Your task to perform on an android device: Open Google Chrome and click the shortcut for Amazon.com Image 0: 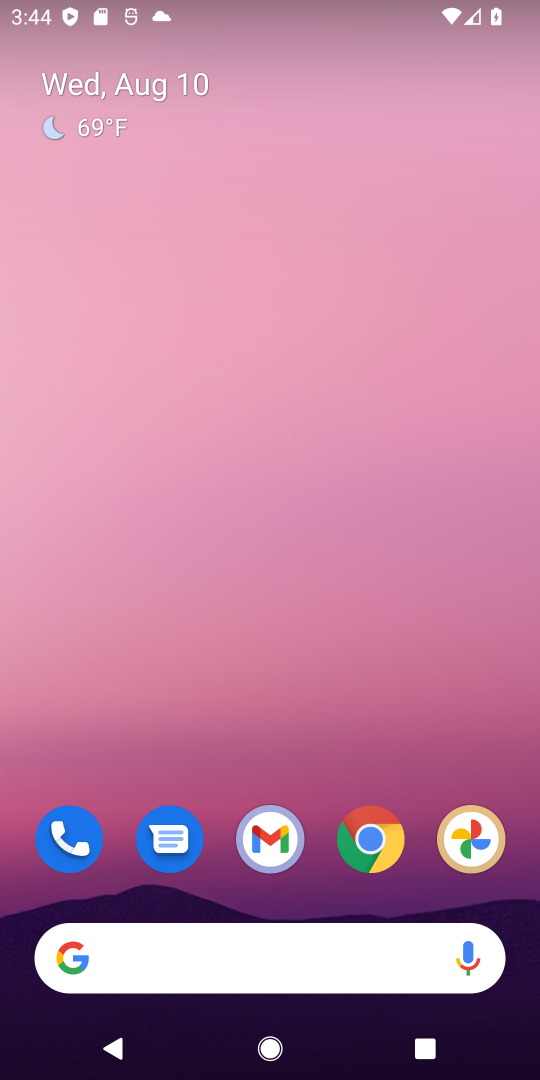
Step 0: click (375, 835)
Your task to perform on an android device: Open Google Chrome and click the shortcut for Amazon.com Image 1: 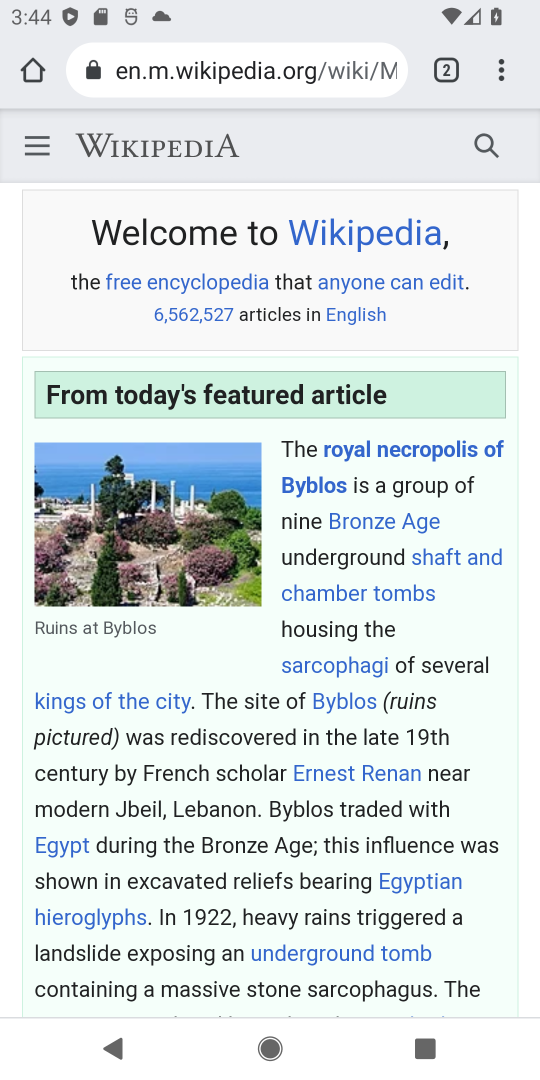
Step 1: press back button
Your task to perform on an android device: Open Google Chrome and click the shortcut for Amazon.com Image 2: 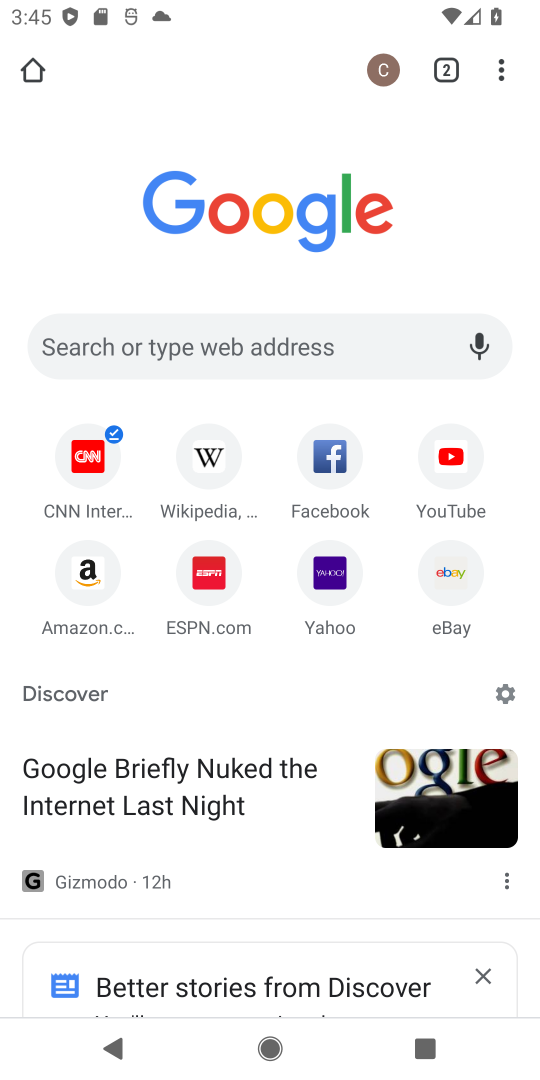
Step 2: click (94, 571)
Your task to perform on an android device: Open Google Chrome and click the shortcut for Amazon.com Image 3: 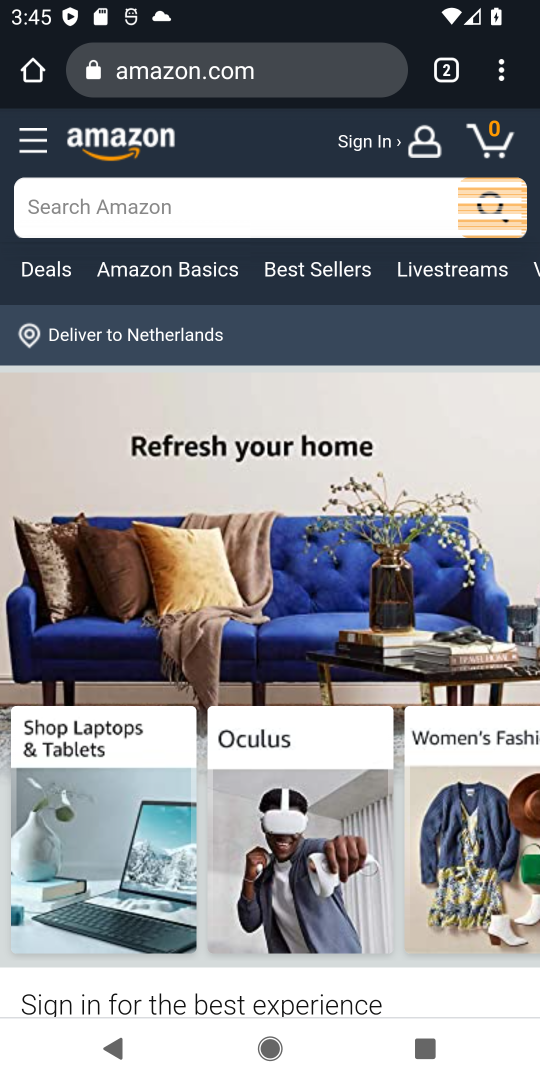
Step 3: task complete